Your task to perform on an android device: Search for vegetarian restaurants on Maps Image 0: 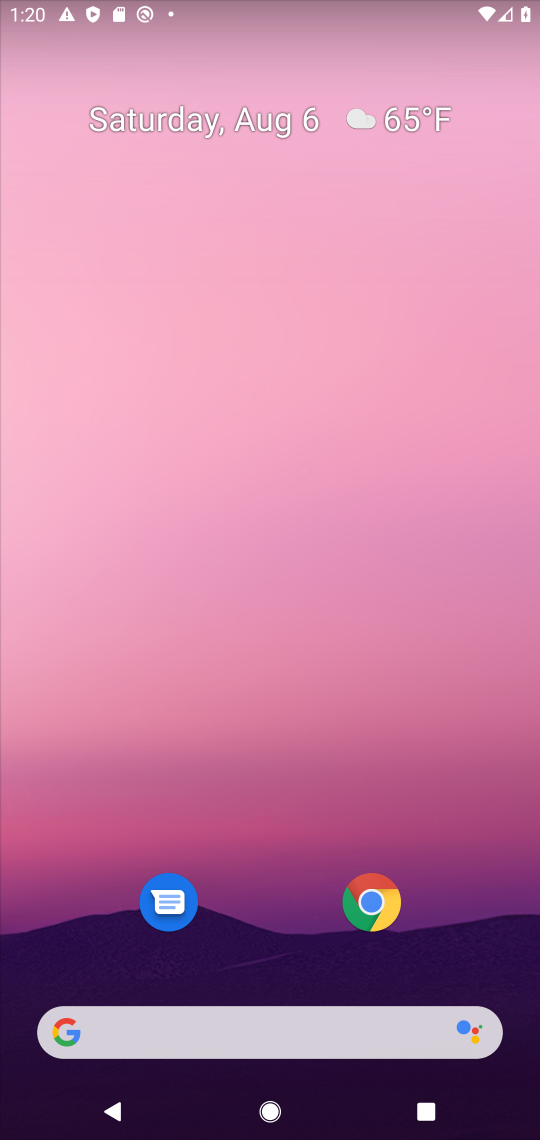
Step 0: click (332, 808)
Your task to perform on an android device: Search for vegetarian restaurants on Maps Image 1: 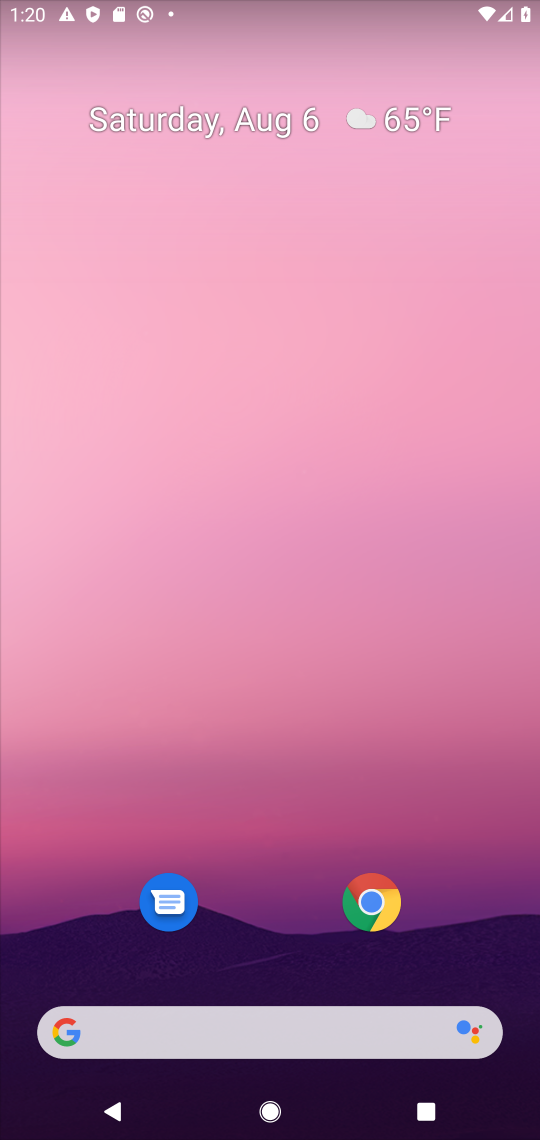
Step 1: drag from (283, 862) to (221, 168)
Your task to perform on an android device: Search for vegetarian restaurants on Maps Image 2: 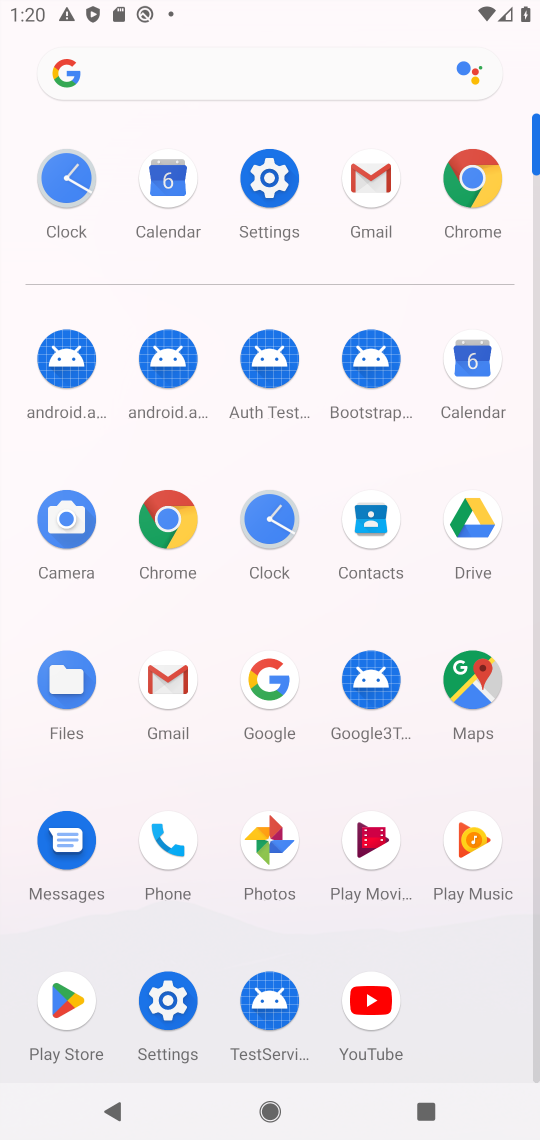
Step 2: click (472, 672)
Your task to perform on an android device: Search for vegetarian restaurants on Maps Image 3: 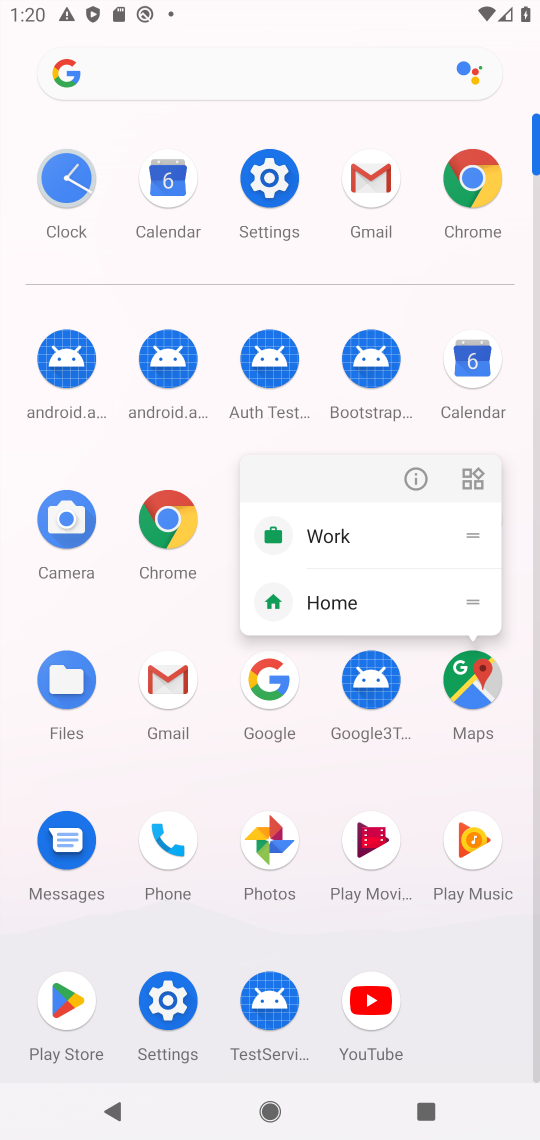
Step 3: click (470, 691)
Your task to perform on an android device: Search for vegetarian restaurants on Maps Image 4: 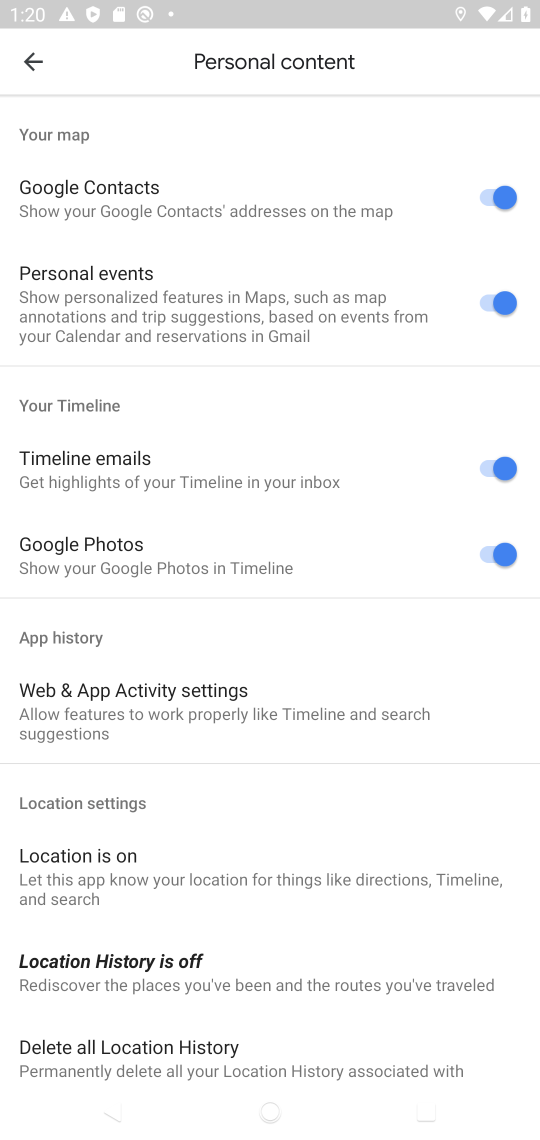
Step 4: click (40, 54)
Your task to perform on an android device: Search for vegetarian restaurants on Maps Image 5: 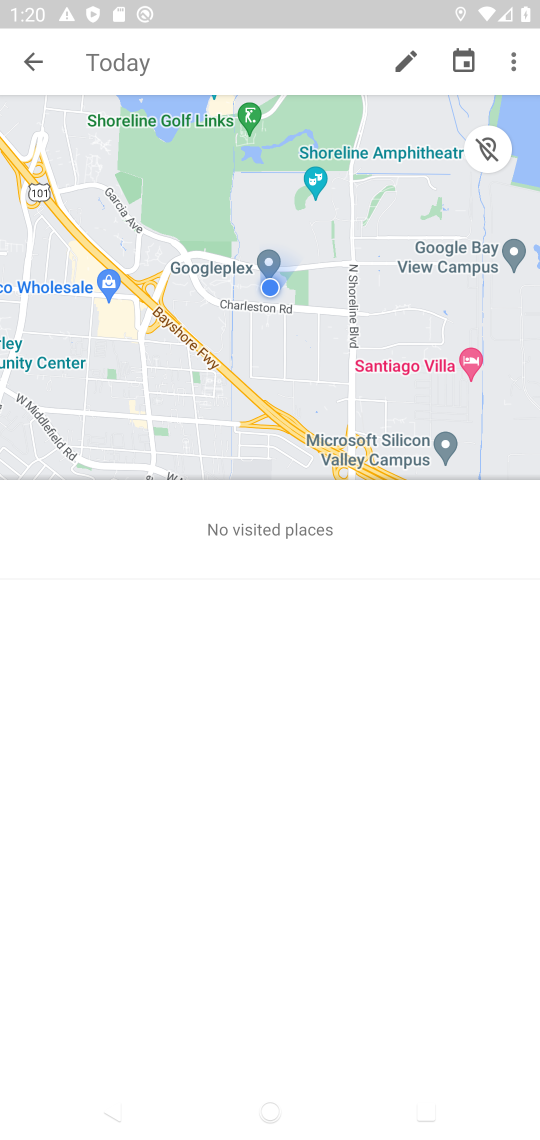
Step 5: click (30, 53)
Your task to perform on an android device: Search for vegetarian restaurants on Maps Image 6: 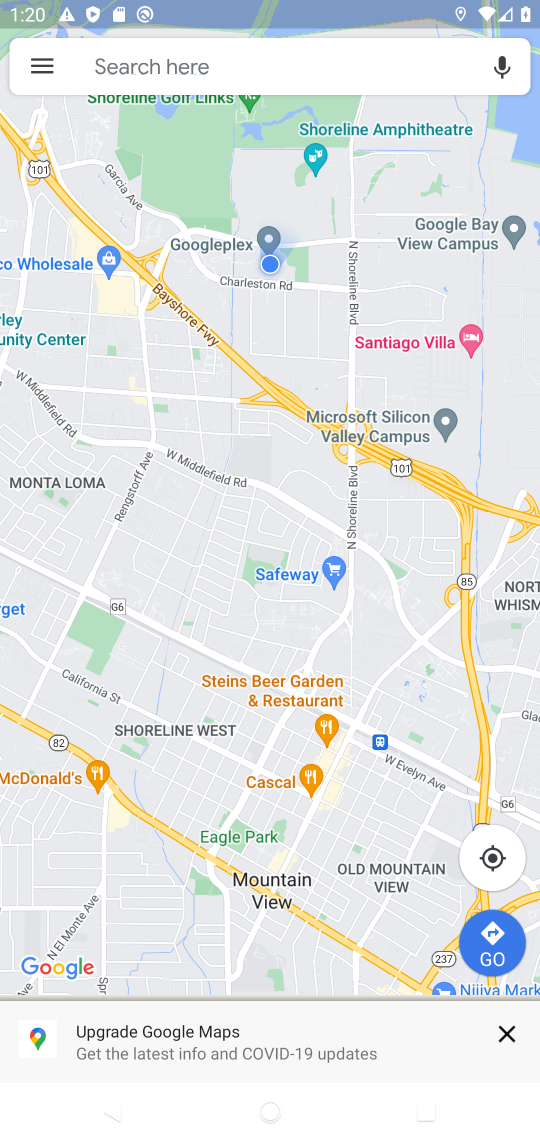
Step 6: click (151, 66)
Your task to perform on an android device: Search for vegetarian restaurants on Maps Image 7: 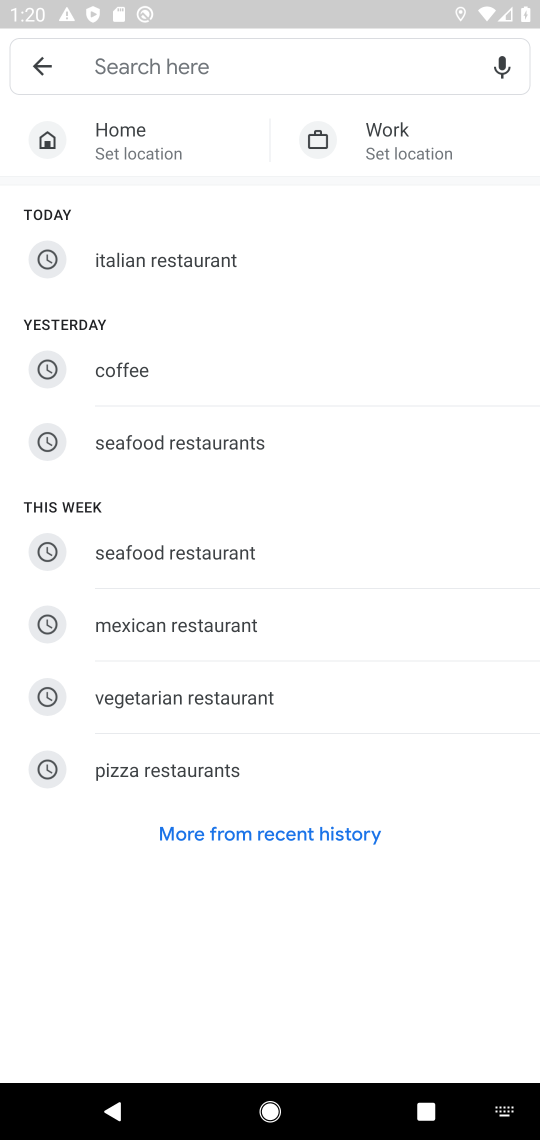
Step 7: click (170, 690)
Your task to perform on an android device: Search for vegetarian restaurants on Maps Image 8: 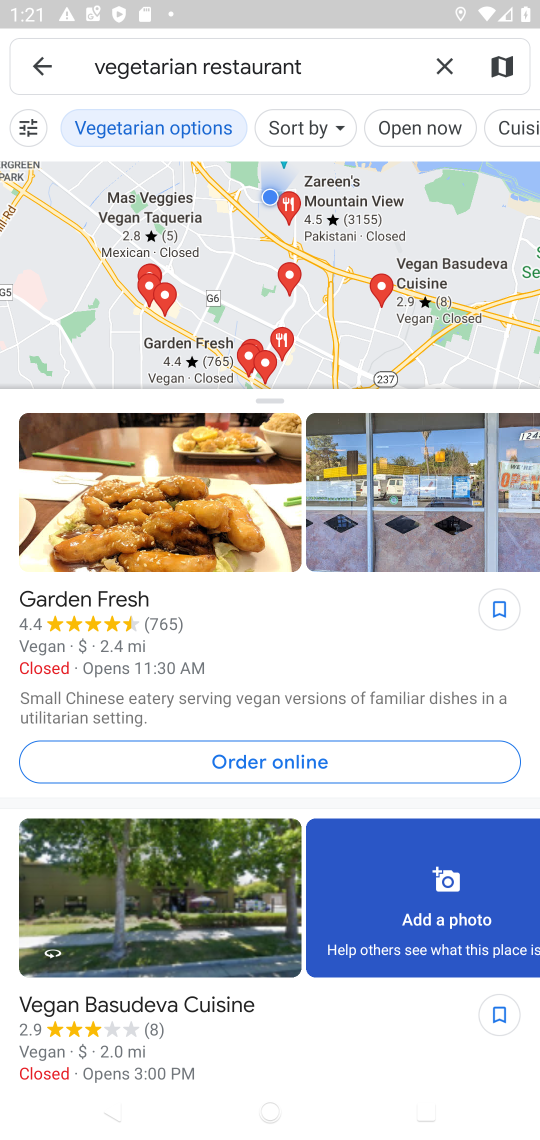
Step 8: task complete